Your task to perform on an android device: set the timer Image 0: 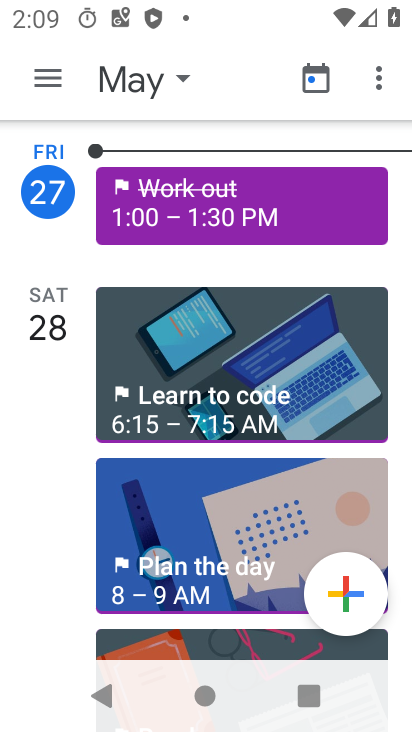
Step 0: click (376, 81)
Your task to perform on an android device: set the timer Image 1: 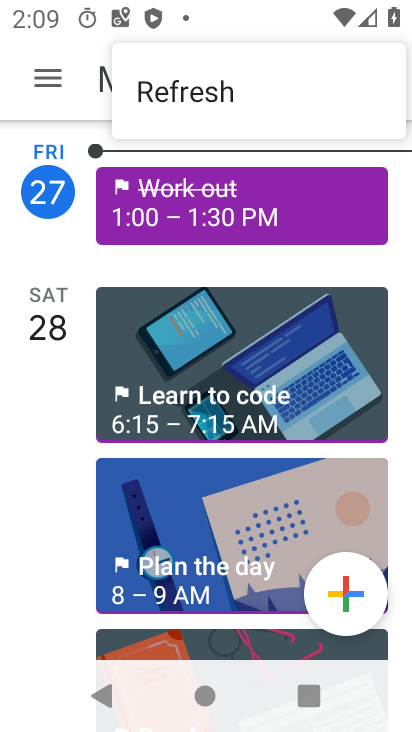
Step 1: press home button
Your task to perform on an android device: set the timer Image 2: 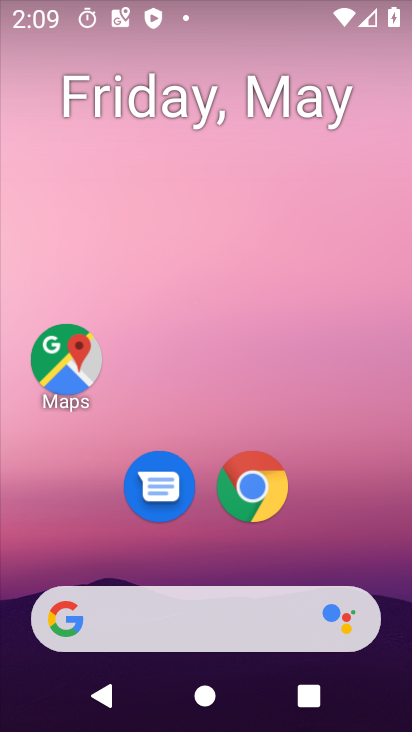
Step 2: drag from (398, 706) to (302, 199)
Your task to perform on an android device: set the timer Image 3: 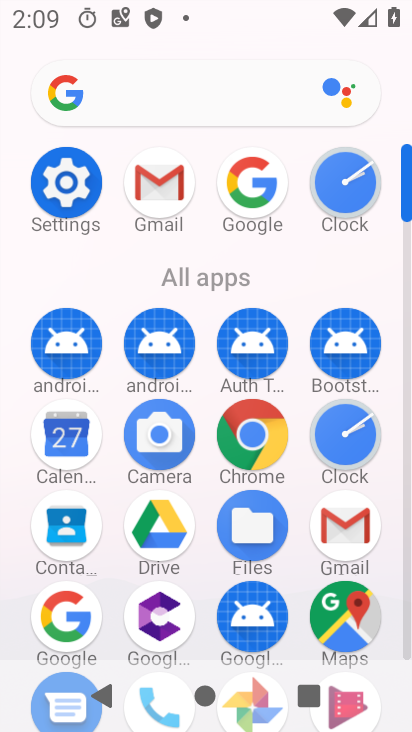
Step 3: click (330, 428)
Your task to perform on an android device: set the timer Image 4: 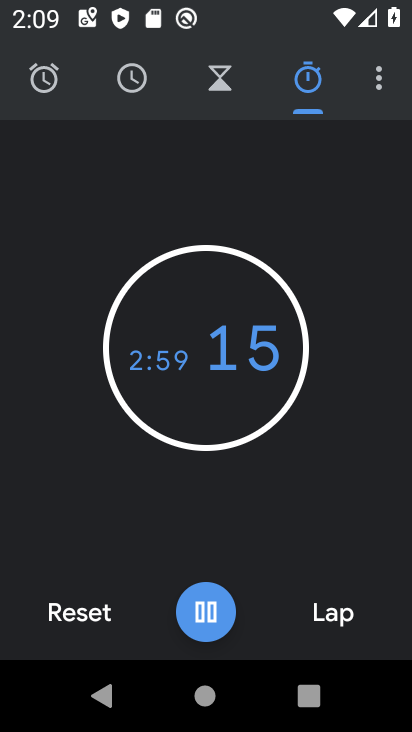
Step 4: click (310, 88)
Your task to perform on an android device: set the timer Image 5: 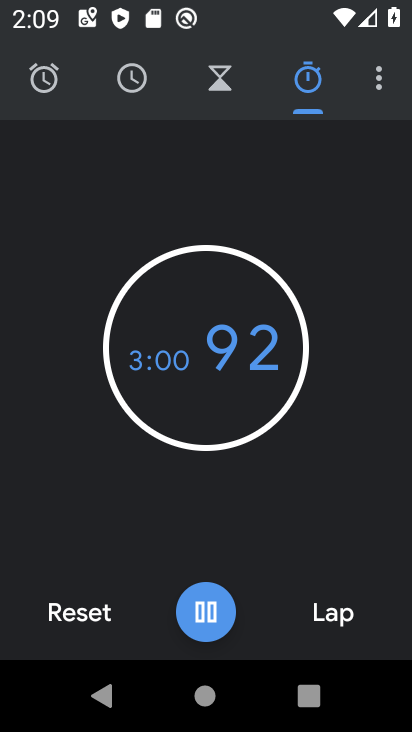
Step 5: click (90, 610)
Your task to perform on an android device: set the timer Image 6: 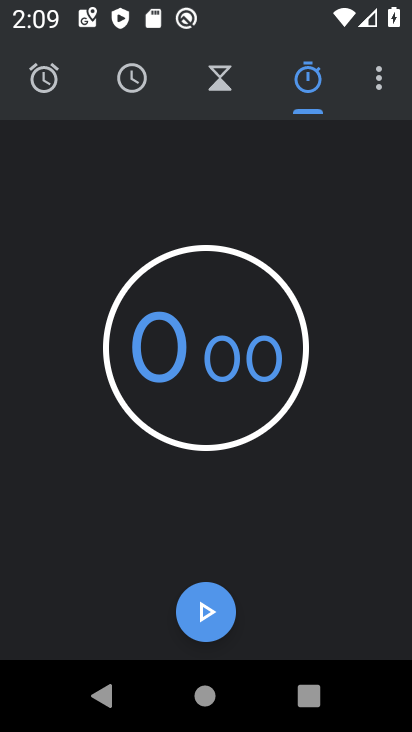
Step 6: click (200, 616)
Your task to perform on an android device: set the timer Image 7: 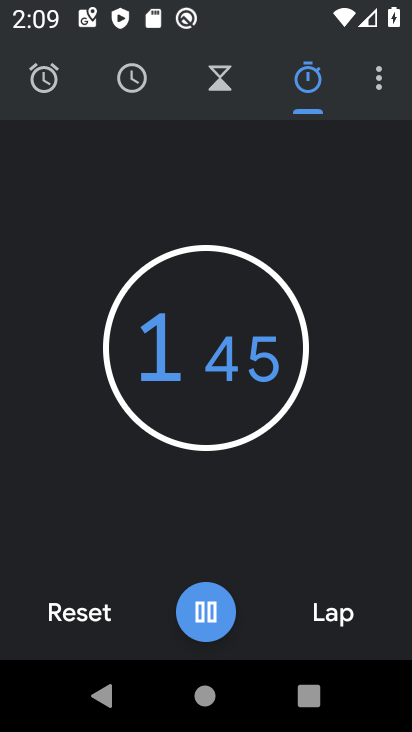
Step 7: task complete